Your task to perform on an android device: open app "WhatsApp Messenger" (install if not already installed), go to login, and select forgot password Image 0: 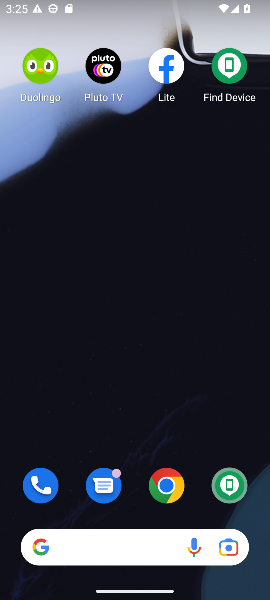
Step 0: drag from (63, 416) to (167, 55)
Your task to perform on an android device: open app "WhatsApp Messenger" (install if not already installed), go to login, and select forgot password Image 1: 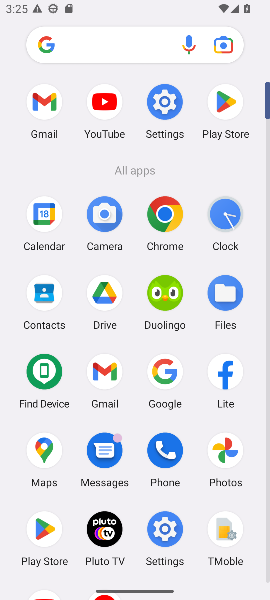
Step 1: click (219, 106)
Your task to perform on an android device: open app "WhatsApp Messenger" (install if not already installed), go to login, and select forgot password Image 2: 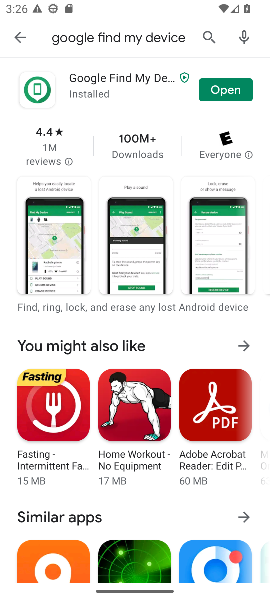
Step 2: click (209, 30)
Your task to perform on an android device: open app "WhatsApp Messenger" (install if not already installed), go to login, and select forgot password Image 3: 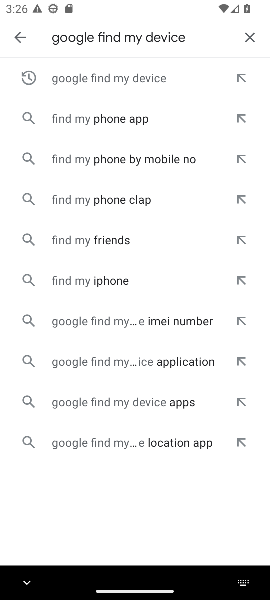
Step 3: click (247, 39)
Your task to perform on an android device: open app "WhatsApp Messenger" (install if not already installed), go to login, and select forgot password Image 4: 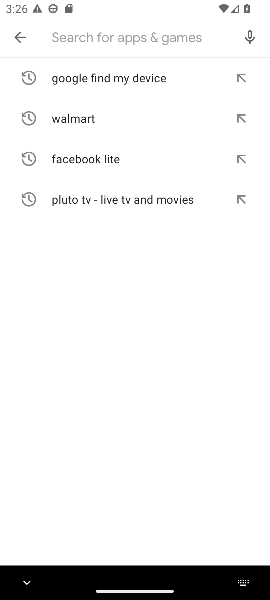
Step 4: click (97, 28)
Your task to perform on an android device: open app "WhatsApp Messenger" (install if not already installed), go to login, and select forgot password Image 5: 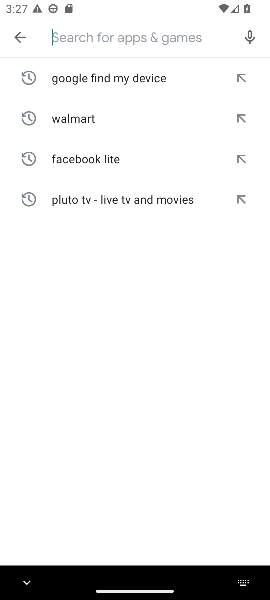
Step 5: type "whatsapp messenger"
Your task to perform on an android device: open app "WhatsApp Messenger" (install if not already installed), go to login, and select forgot password Image 6: 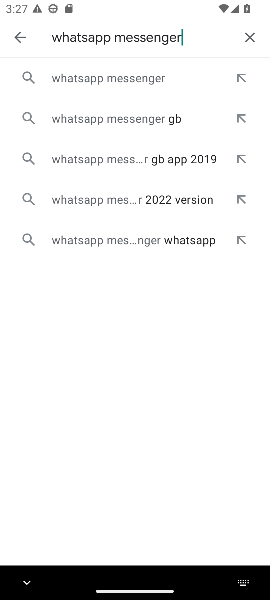
Step 6: click (104, 72)
Your task to perform on an android device: open app "WhatsApp Messenger" (install if not already installed), go to login, and select forgot password Image 7: 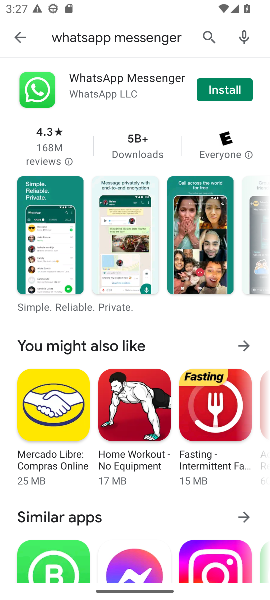
Step 7: click (219, 95)
Your task to perform on an android device: open app "WhatsApp Messenger" (install if not already installed), go to login, and select forgot password Image 8: 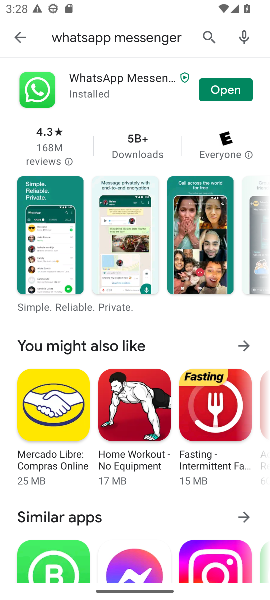
Step 8: click (213, 87)
Your task to perform on an android device: open app "WhatsApp Messenger" (install if not already installed), go to login, and select forgot password Image 9: 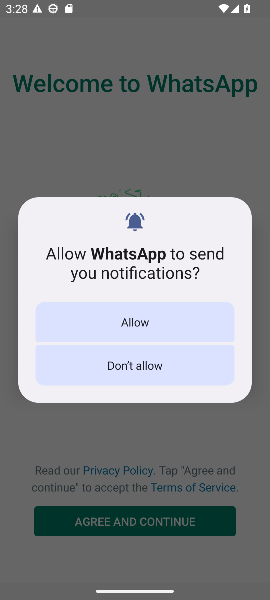
Step 9: click (146, 322)
Your task to perform on an android device: open app "WhatsApp Messenger" (install if not already installed), go to login, and select forgot password Image 10: 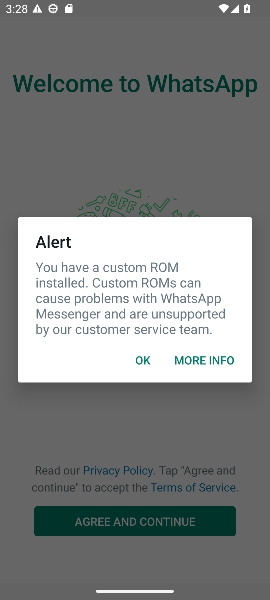
Step 10: click (138, 357)
Your task to perform on an android device: open app "WhatsApp Messenger" (install if not already installed), go to login, and select forgot password Image 11: 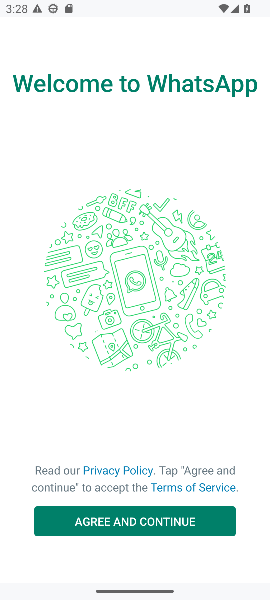
Step 11: click (102, 536)
Your task to perform on an android device: open app "WhatsApp Messenger" (install if not already installed), go to login, and select forgot password Image 12: 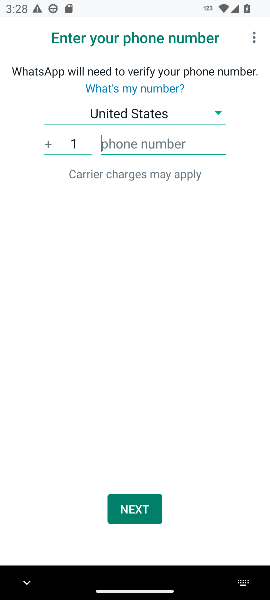
Step 12: task complete